Your task to perform on an android device: search for starred emails in the gmail app Image 0: 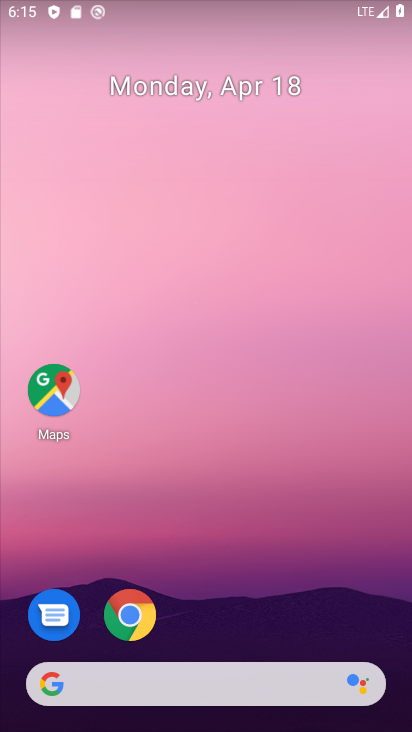
Step 0: drag from (307, 326) to (245, 2)
Your task to perform on an android device: search for starred emails in the gmail app Image 1: 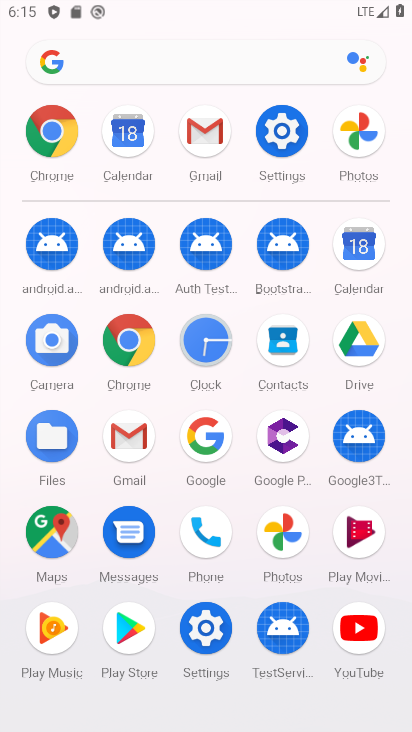
Step 1: click (190, 150)
Your task to perform on an android device: search for starred emails in the gmail app Image 2: 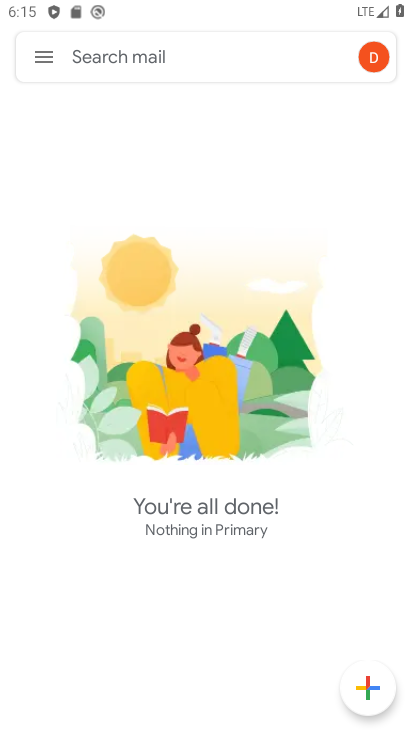
Step 2: click (29, 53)
Your task to perform on an android device: search for starred emails in the gmail app Image 3: 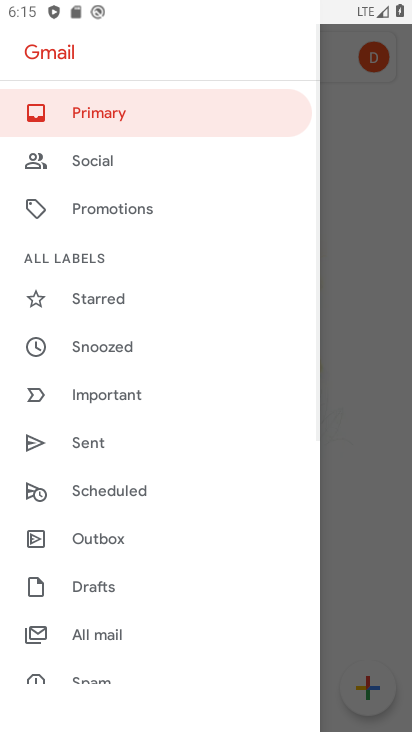
Step 3: click (151, 302)
Your task to perform on an android device: search for starred emails in the gmail app Image 4: 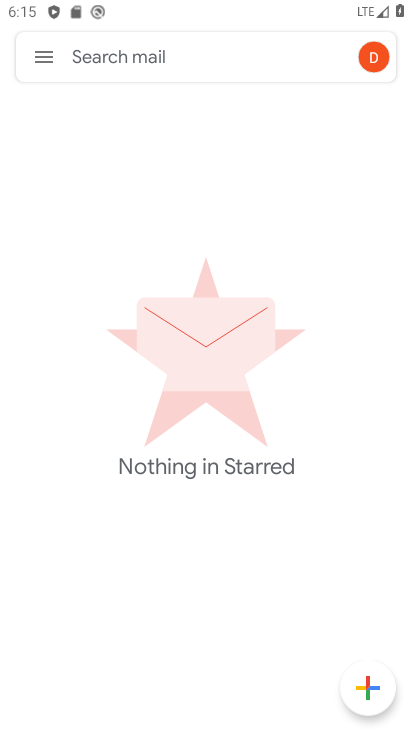
Step 4: task complete